Your task to perform on an android device: Open settings Image 0: 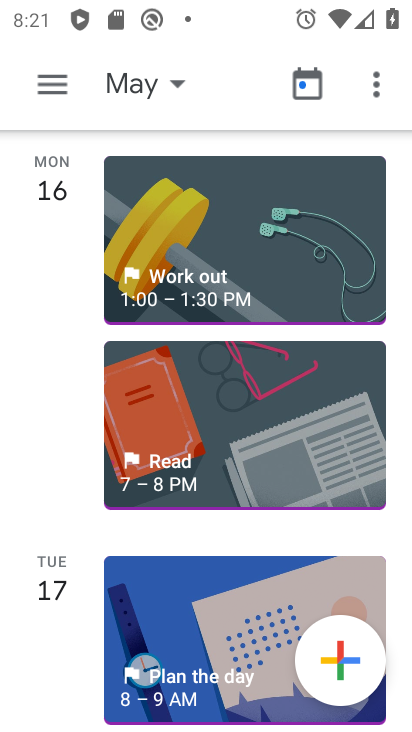
Step 0: press home button
Your task to perform on an android device: Open settings Image 1: 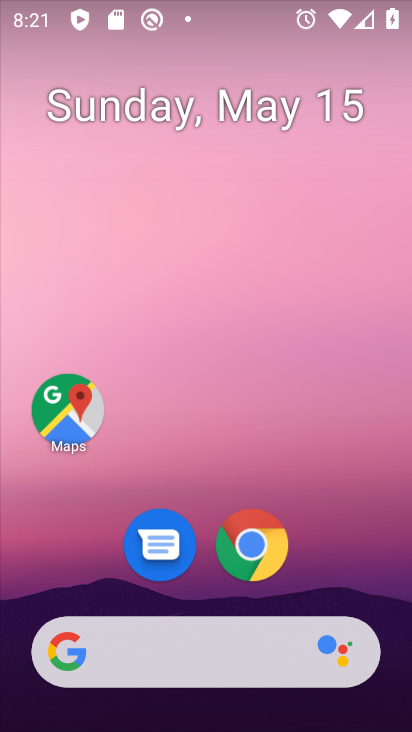
Step 1: drag from (373, 553) to (372, 114)
Your task to perform on an android device: Open settings Image 2: 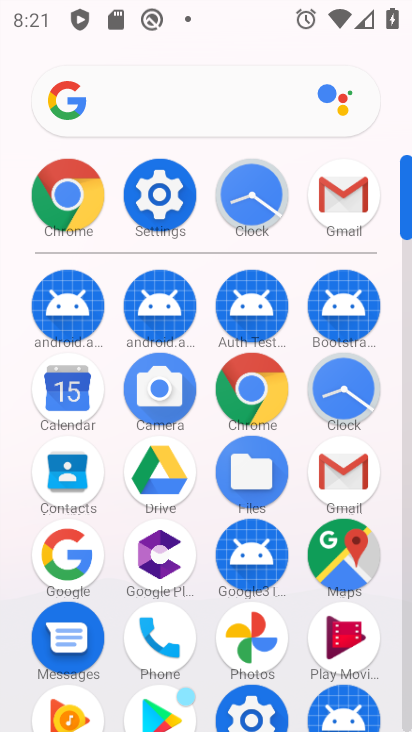
Step 2: click (175, 197)
Your task to perform on an android device: Open settings Image 3: 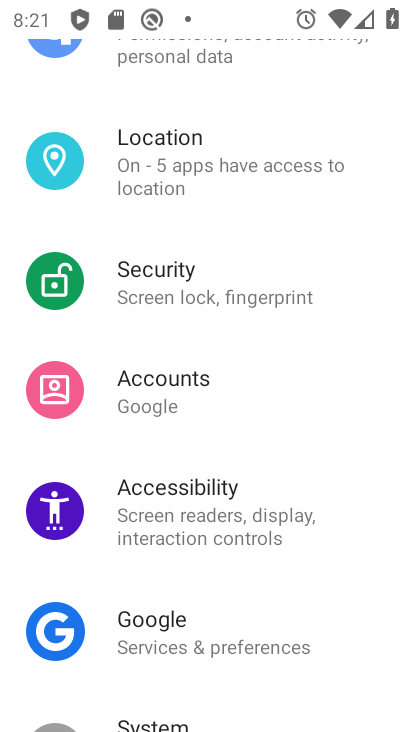
Step 3: task complete